Your task to perform on an android device: turn on sleep mode Image 0: 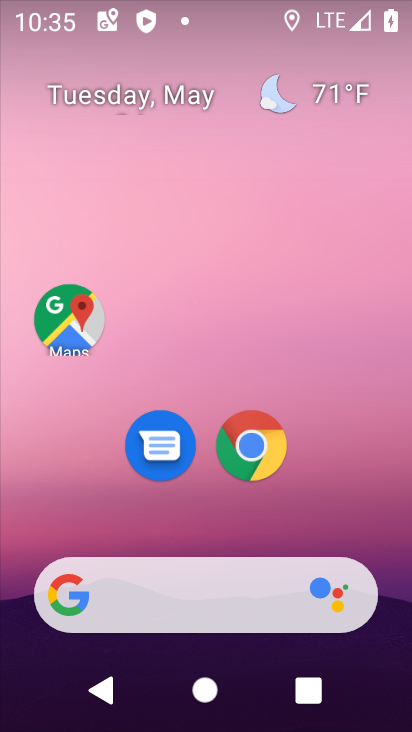
Step 0: drag from (339, 520) to (299, 177)
Your task to perform on an android device: turn on sleep mode Image 1: 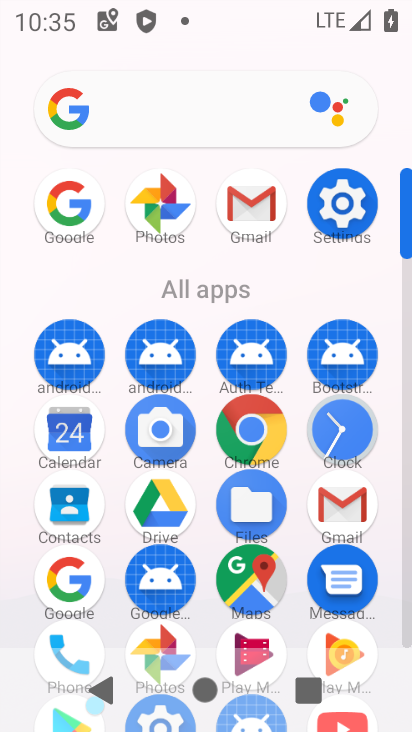
Step 1: click (342, 203)
Your task to perform on an android device: turn on sleep mode Image 2: 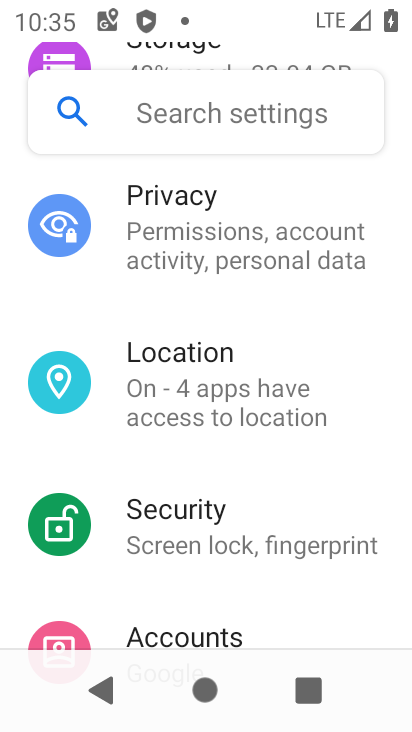
Step 2: drag from (235, 307) to (222, 407)
Your task to perform on an android device: turn on sleep mode Image 3: 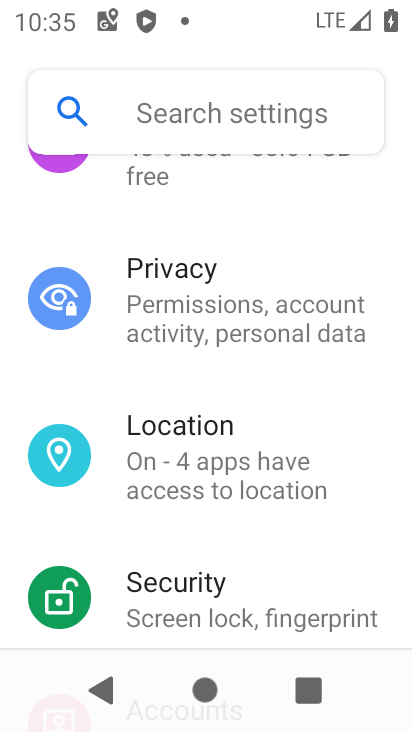
Step 3: drag from (266, 248) to (234, 433)
Your task to perform on an android device: turn on sleep mode Image 4: 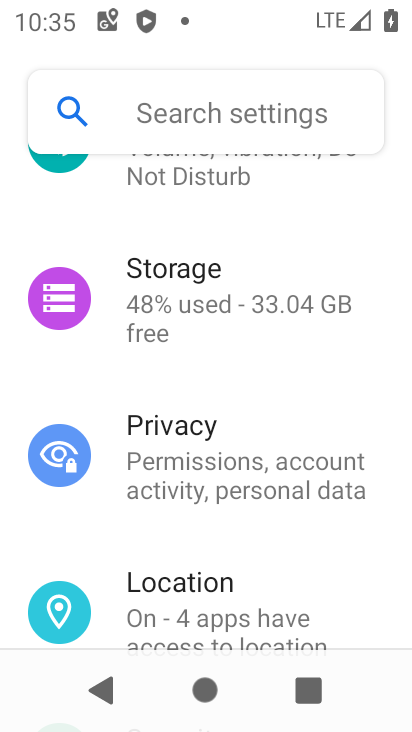
Step 4: drag from (248, 236) to (230, 362)
Your task to perform on an android device: turn on sleep mode Image 5: 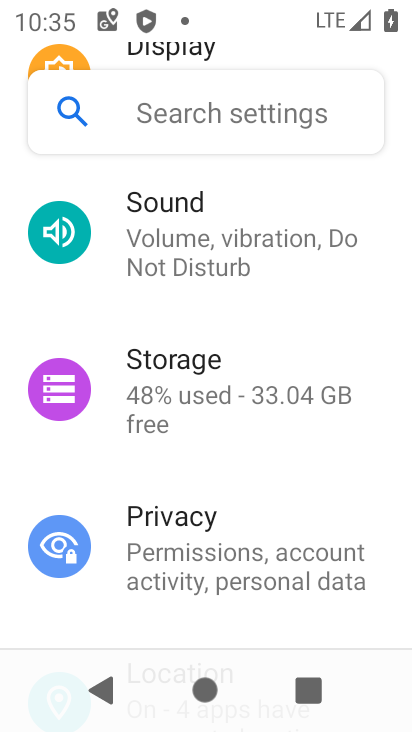
Step 5: drag from (202, 305) to (193, 411)
Your task to perform on an android device: turn on sleep mode Image 6: 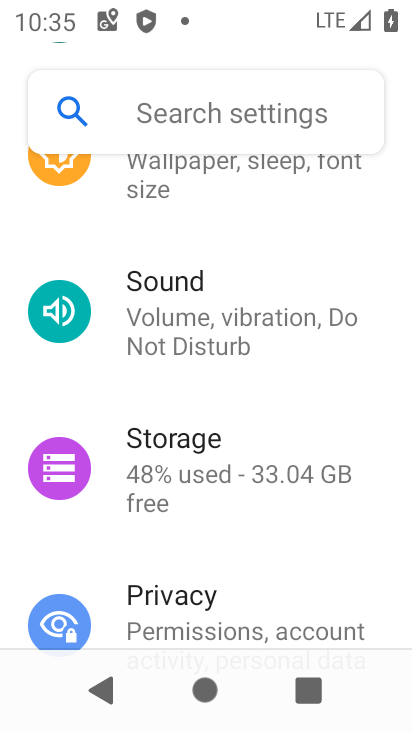
Step 6: drag from (208, 247) to (201, 416)
Your task to perform on an android device: turn on sleep mode Image 7: 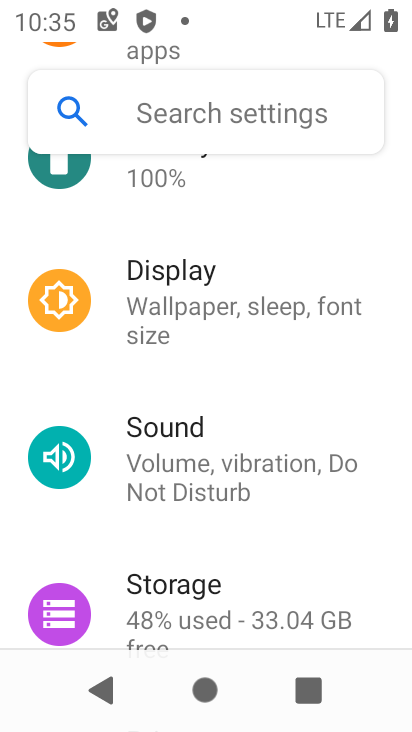
Step 7: drag from (218, 352) to (234, 456)
Your task to perform on an android device: turn on sleep mode Image 8: 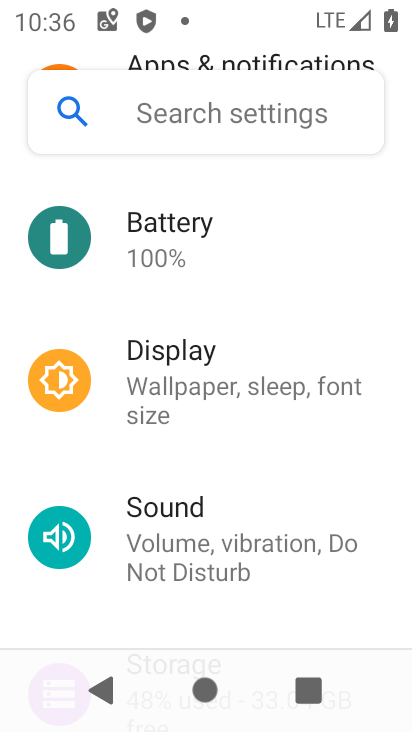
Step 8: click (177, 392)
Your task to perform on an android device: turn on sleep mode Image 9: 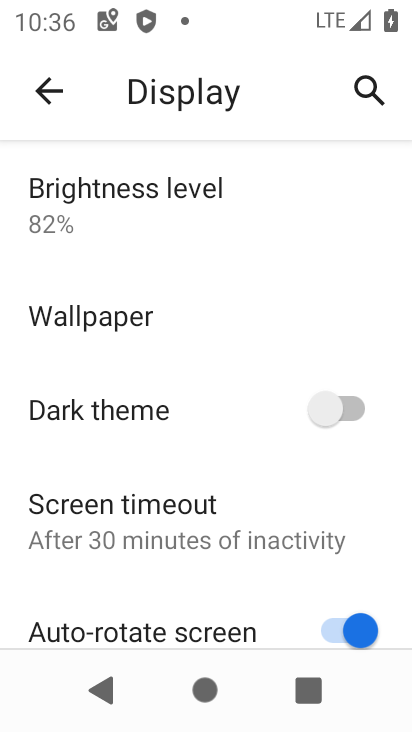
Step 9: drag from (104, 468) to (181, 359)
Your task to perform on an android device: turn on sleep mode Image 10: 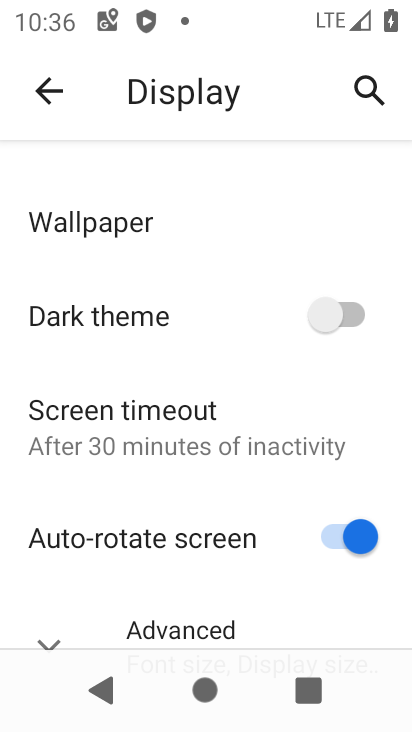
Step 10: drag from (106, 474) to (163, 382)
Your task to perform on an android device: turn on sleep mode Image 11: 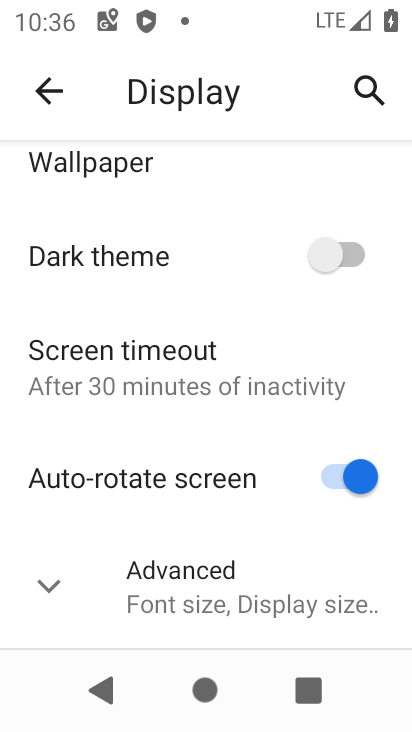
Step 11: drag from (146, 441) to (189, 342)
Your task to perform on an android device: turn on sleep mode Image 12: 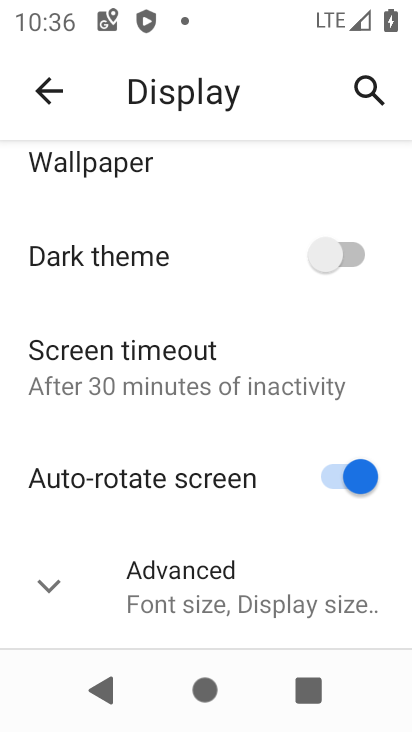
Step 12: click (191, 580)
Your task to perform on an android device: turn on sleep mode Image 13: 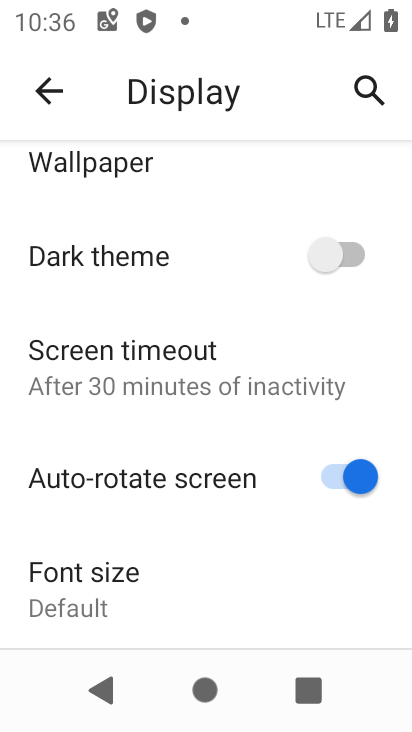
Step 13: drag from (86, 530) to (135, 442)
Your task to perform on an android device: turn on sleep mode Image 14: 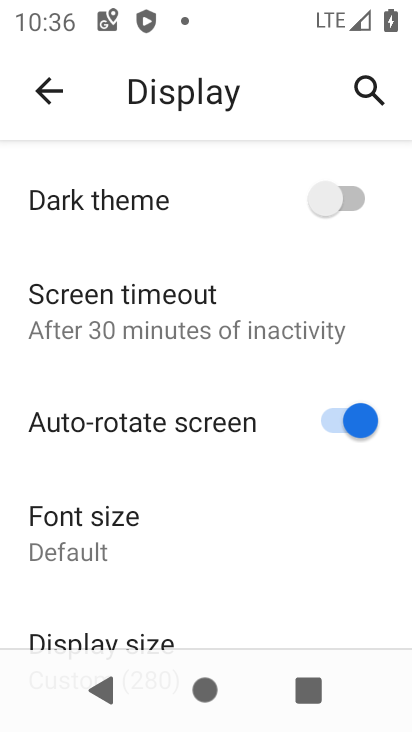
Step 14: drag from (146, 480) to (185, 402)
Your task to perform on an android device: turn on sleep mode Image 15: 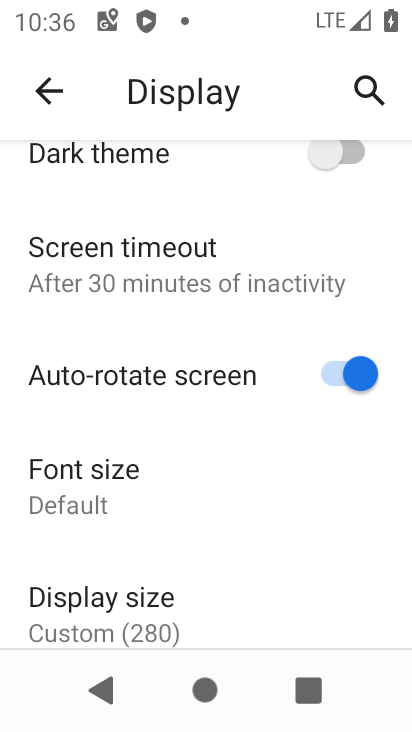
Step 15: click (200, 330)
Your task to perform on an android device: turn on sleep mode Image 16: 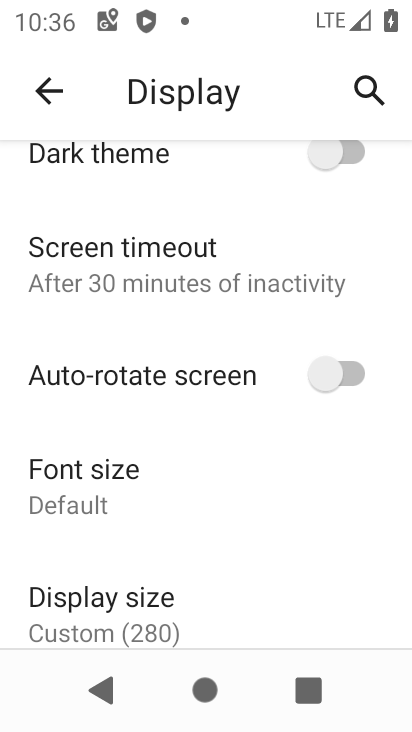
Step 16: click (206, 283)
Your task to perform on an android device: turn on sleep mode Image 17: 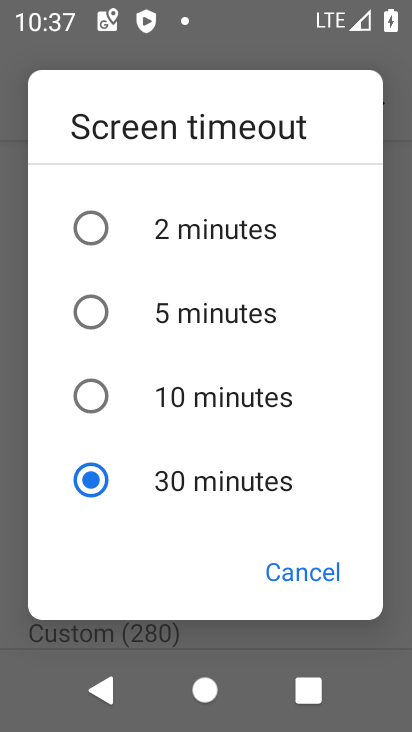
Step 17: click (292, 579)
Your task to perform on an android device: turn on sleep mode Image 18: 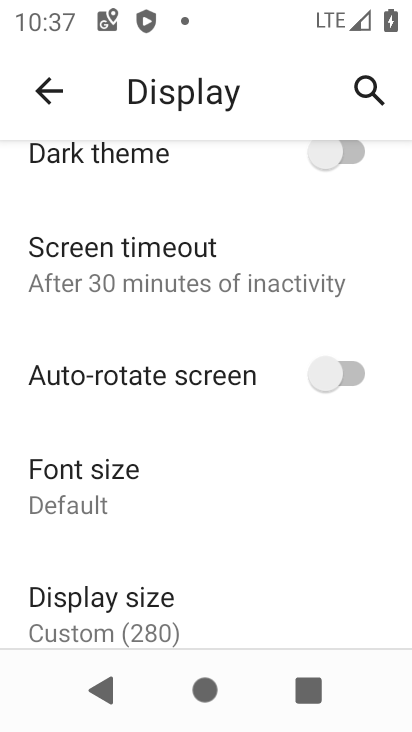
Step 18: task complete